Your task to perform on an android device: turn off location history Image 0: 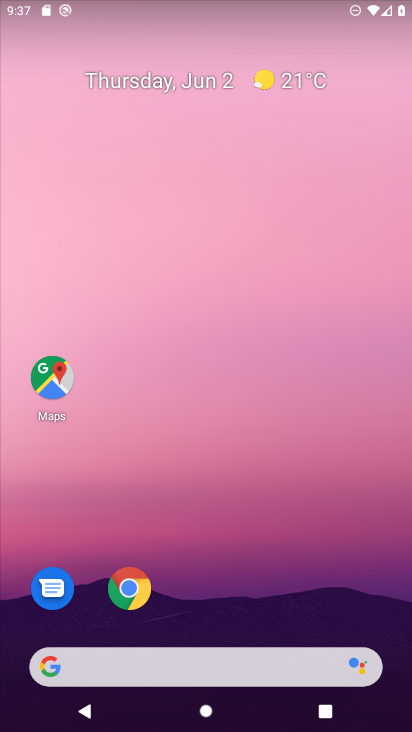
Step 0: drag from (224, 646) to (241, 227)
Your task to perform on an android device: turn off location history Image 1: 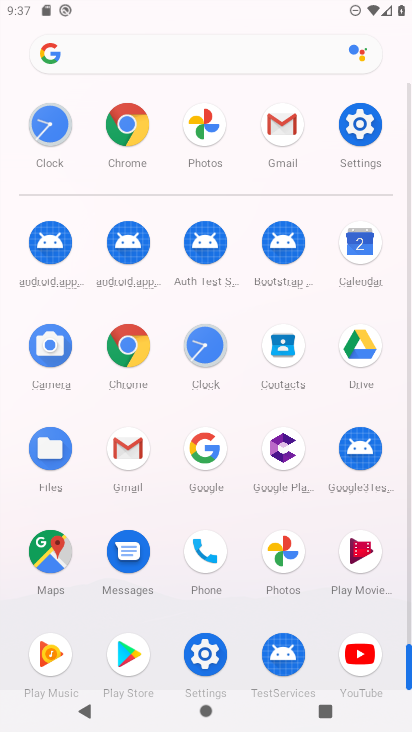
Step 1: click (373, 135)
Your task to perform on an android device: turn off location history Image 2: 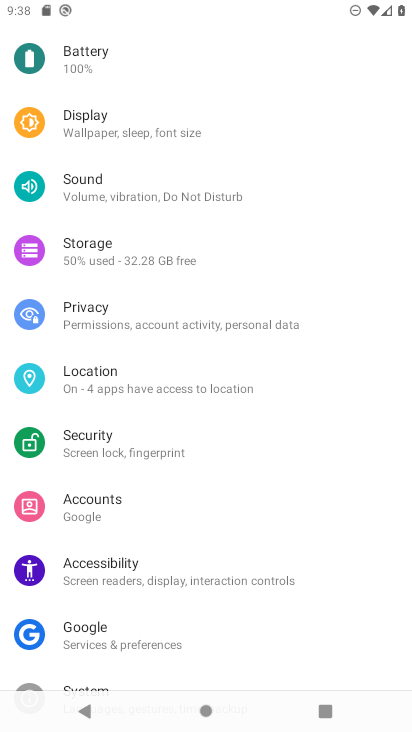
Step 2: click (183, 372)
Your task to perform on an android device: turn off location history Image 3: 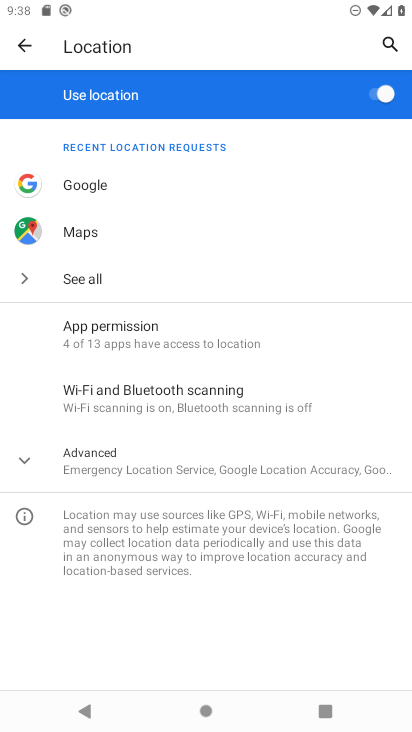
Step 3: click (149, 447)
Your task to perform on an android device: turn off location history Image 4: 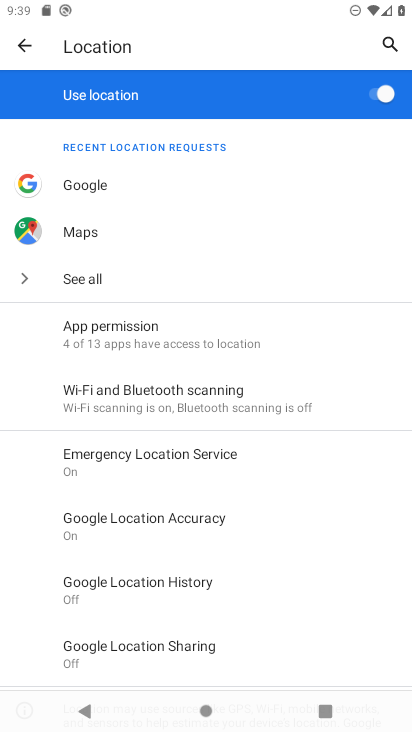
Step 4: click (179, 599)
Your task to perform on an android device: turn off location history Image 5: 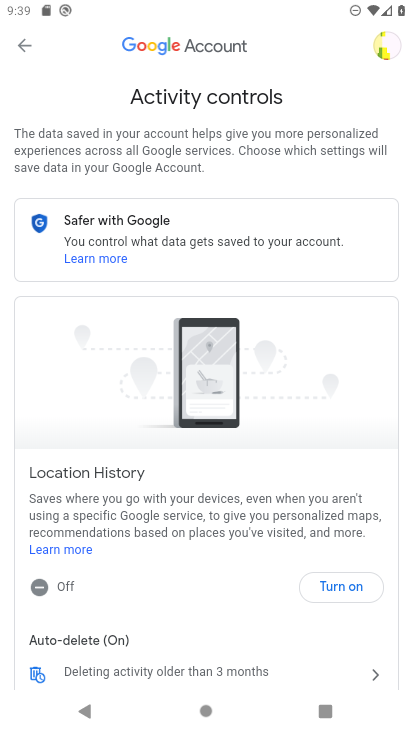
Step 5: task complete